Your task to perform on an android device: Go to display settings Image 0: 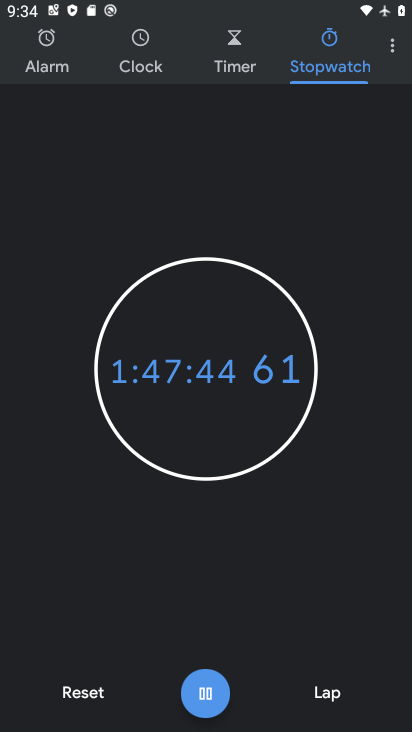
Step 0: press home button
Your task to perform on an android device: Go to display settings Image 1: 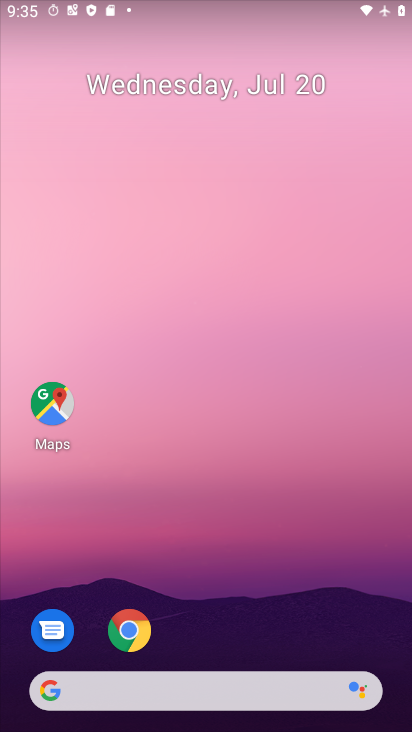
Step 1: drag from (244, 637) to (254, 166)
Your task to perform on an android device: Go to display settings Image 2: 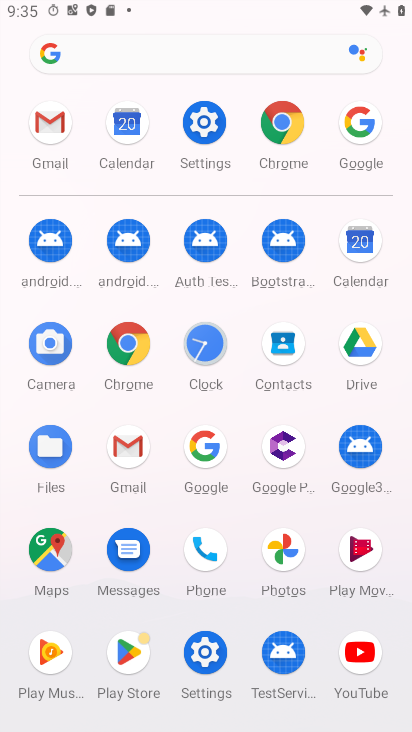
Step 2: click (207, 141)
Your task to perform on an android device: Go to display settings Image 3: 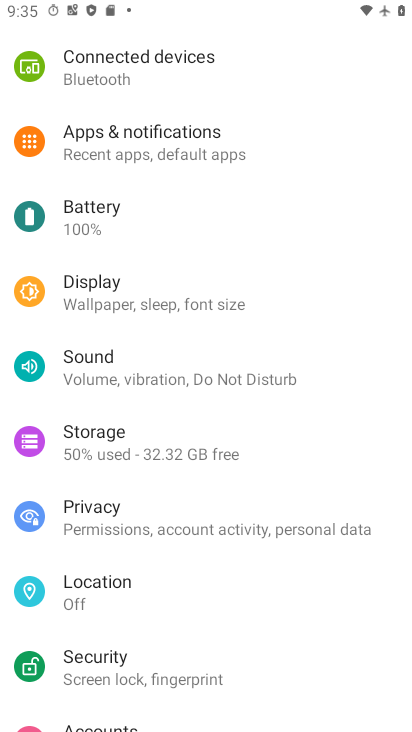
Step 3: click (117, 282)
Your task to perform on an android device: Go to display settings Image 4: 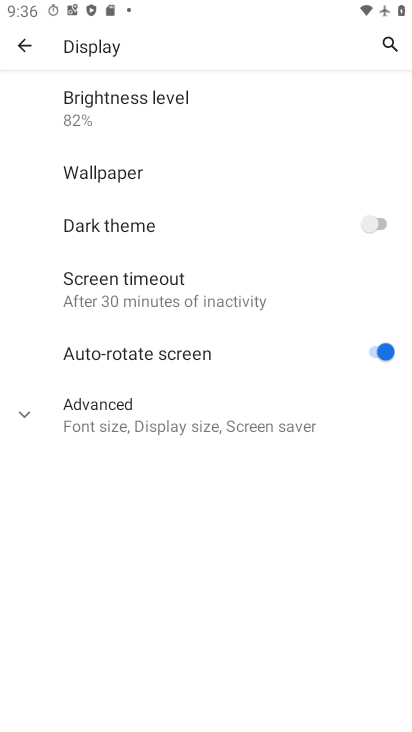
Step 4: task complete